Your task to perform on an android device: turn pop-ups off in chrome Image 0: 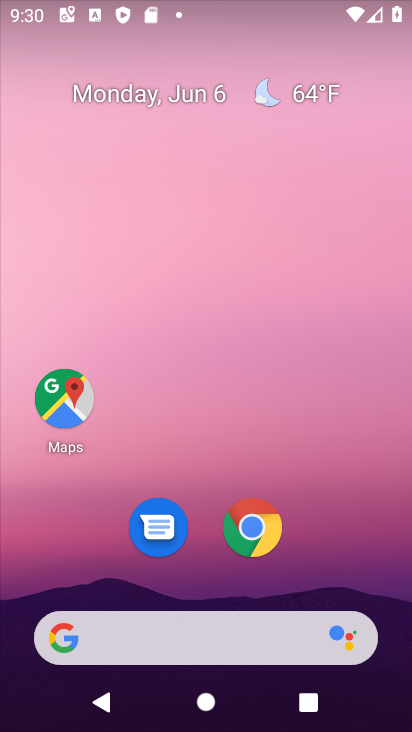
Step 0: drag from (263, 341) to (237, 178)
Your task to perform on an android device: turn pop-ups off in chrome Image 1: 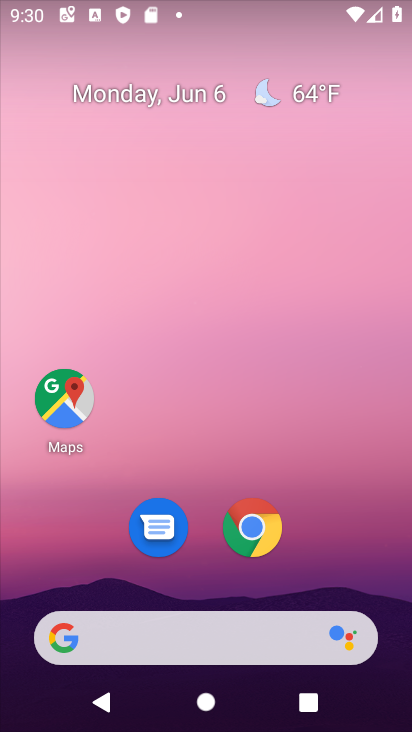
Step 1: drag from (214, 669) to (218, 191)
Your task to perform on an android device: turn pop-ups off in chrome Image 2: 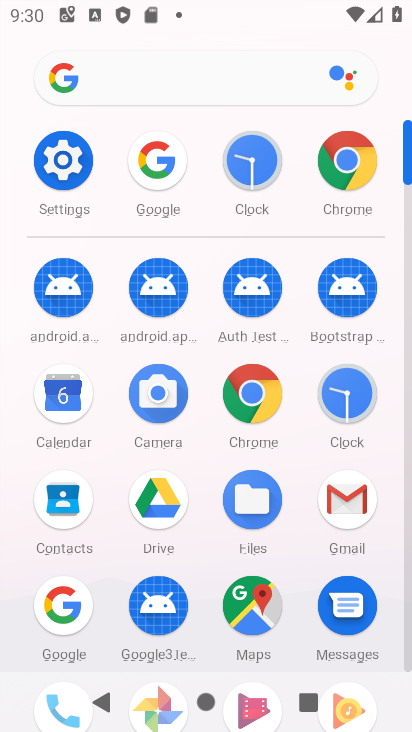
Step 2: click (341, 184)
Your task to perform on an android device: turn pop-ups off in chrome Image 3: 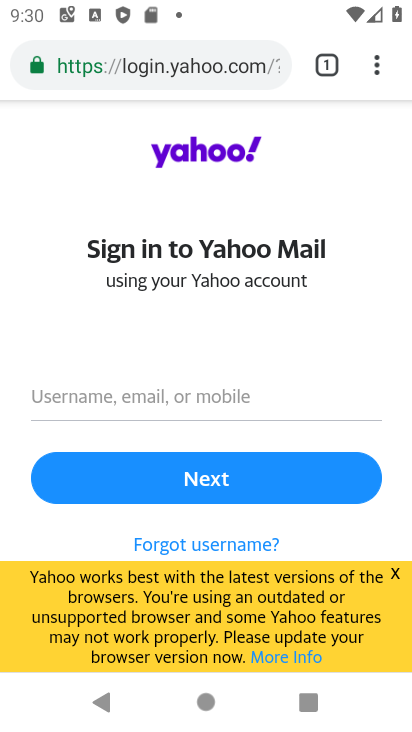
Step 3: click (384, 78)
Your task to perform on an android device: turn pop-ups off in chrome Image 4: 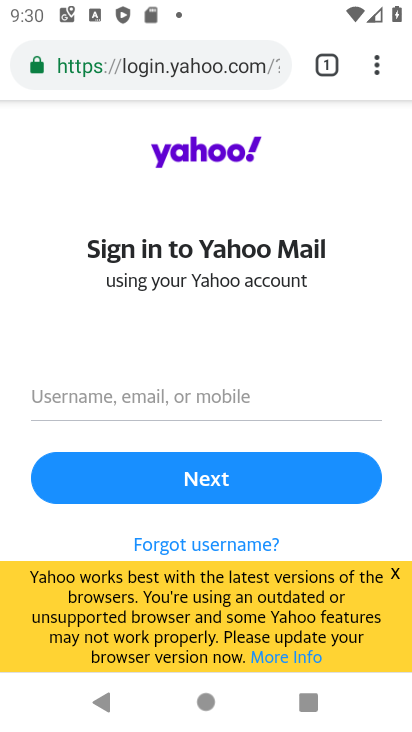
Step 4: click (384, 78)
Your task to perform on an android device: turn pop-ups off in chrome Image 5: 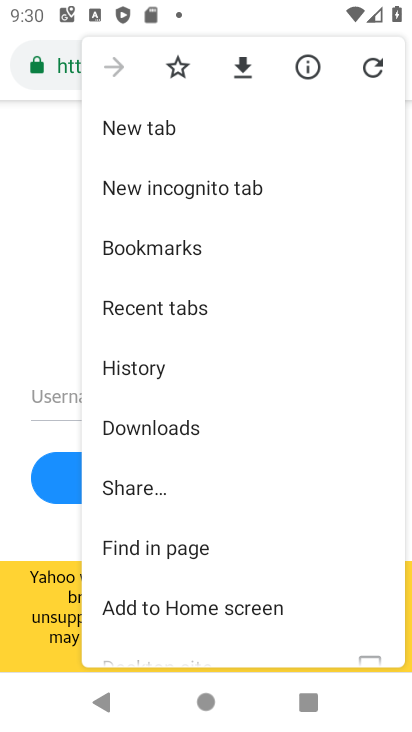
Step 5: drag from (206, 509) to (231, 241)
Your task to perform on an android device: turn pop-ups off in chrome Image 6: 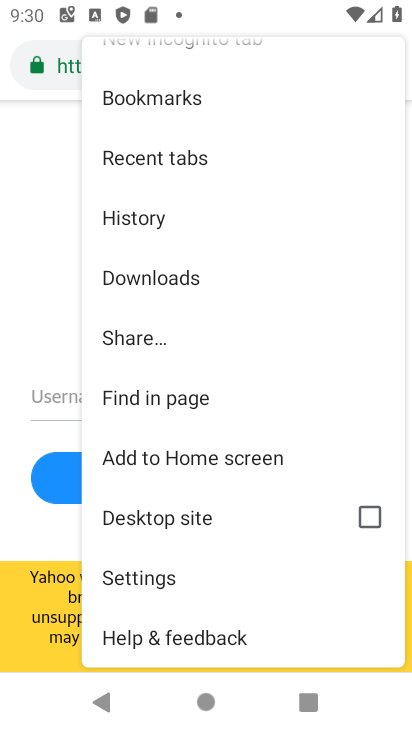
Step 6: click (169, 574)
Your task to perform on an android device: turn pop-ups off in chrome Image 7: 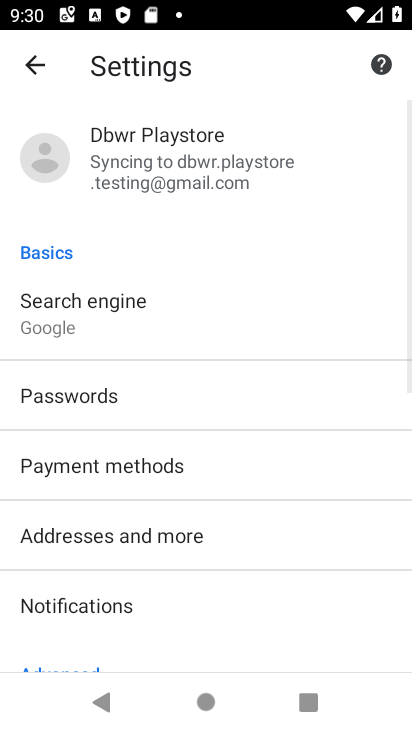
Step 7: drag from (167, 513) to (165, 377)
Your task to perform on an android device: turn pop-ups off in chrome Image 8: 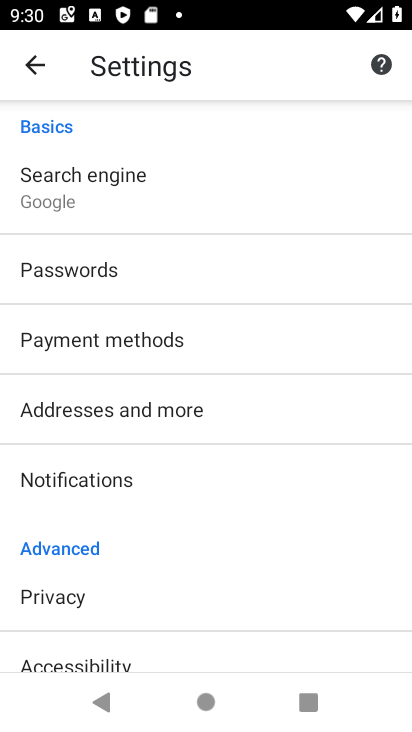
Step 8: drag from (156, 551) to (129, 340)
Your task to perform on an android device: turn pop-ups off in chrome Image 9: 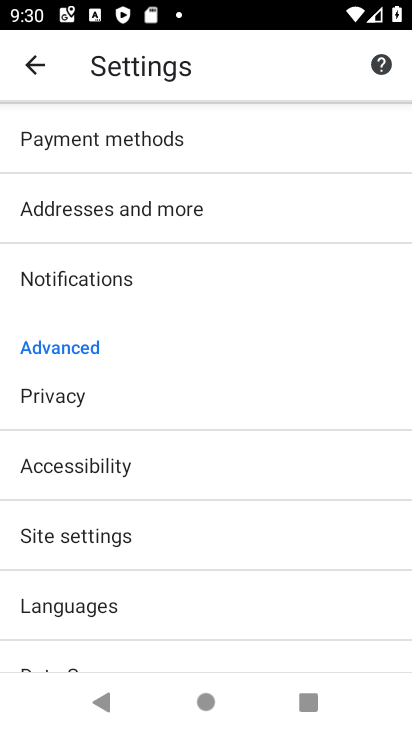
Step 9: drag from (125, 572) to (129, 331)
Your task to perform on an android device: turn pop-ups off in chrome Image 10: 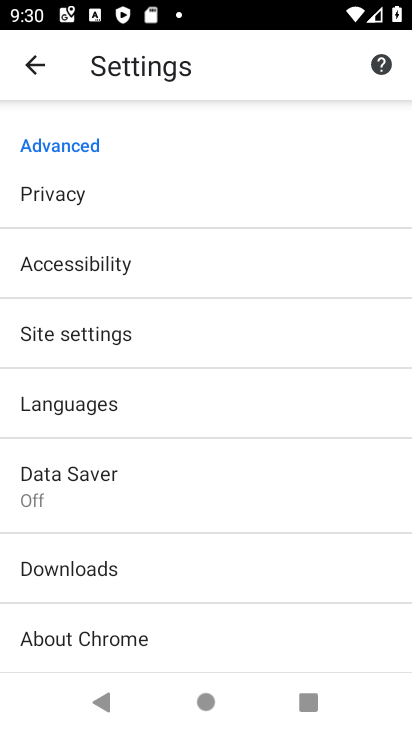
Step 10: drag from (157, 572) to (165, 367)
Your task to perform on an android device: turn pop-ups off in chrome Image 11: 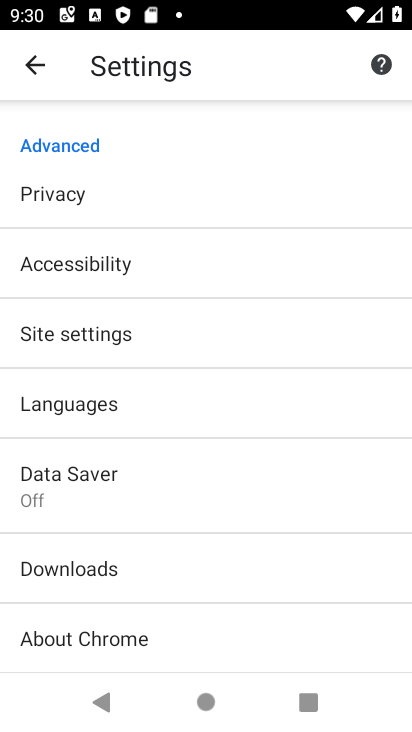
Step 11: drag from (159, 591) to (177, 310)
Your task to perform on an android device: turn pop-ups off in chrome Image 12: 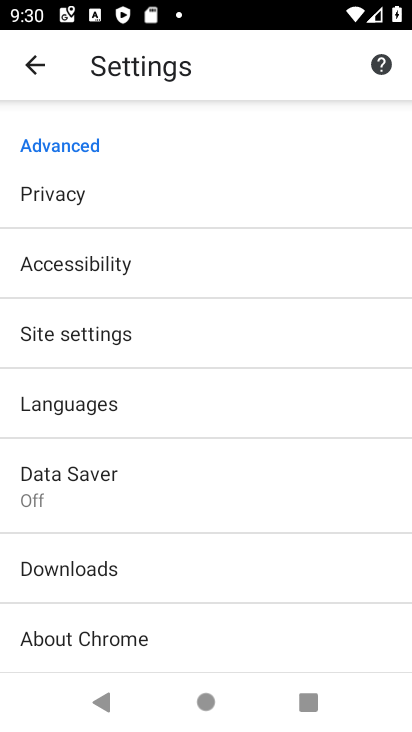
Step 12: click (173, 454)
Your task to perform on an android device: turn pop-ups off in chrome Image 13: 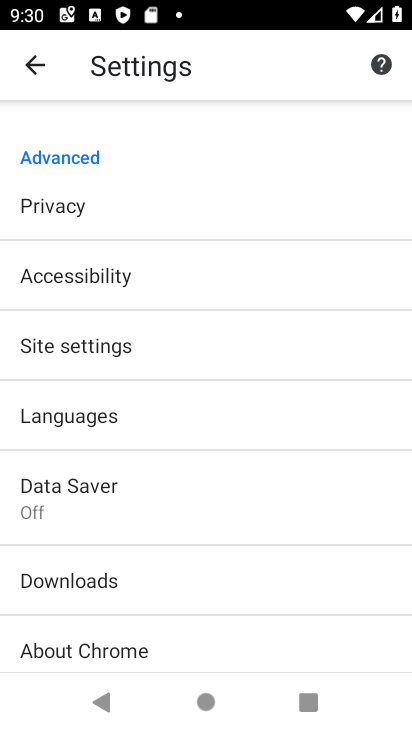
Step 13: click (170, 336)
Your task to perform on an android device: turn pop-ups off in chrome Image 14: 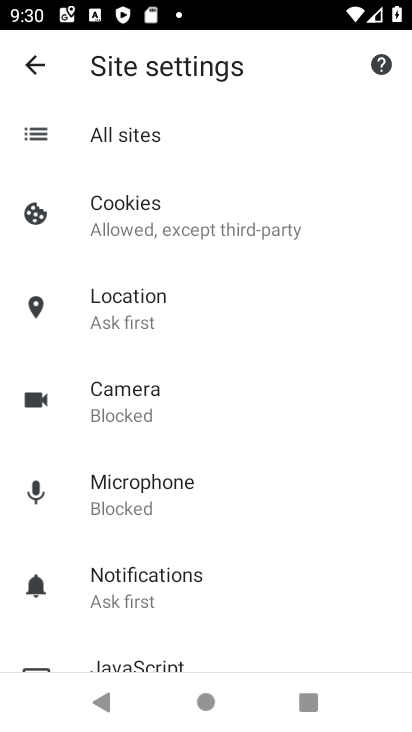
Step 14: drag from (161, 495) to (204, 243)
Your task to perform on an android device: turn pop-ups off in chrome Image 15: 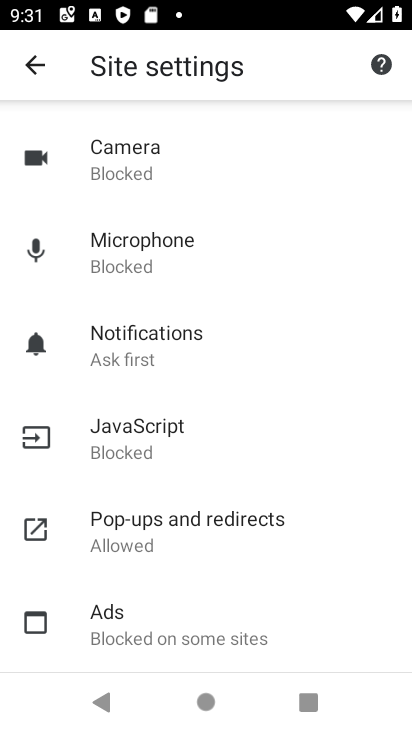
Step 15: click (162, 543)
Your task to perform on an android device: turn pop-ups off in chrome Image 16: 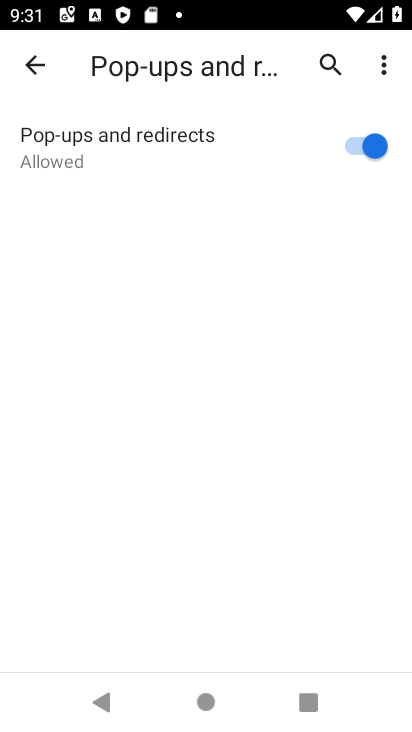
Step 16: click (350, 150)
Your task to perform on an android device: turn pop-ups off in chrome Image 17: 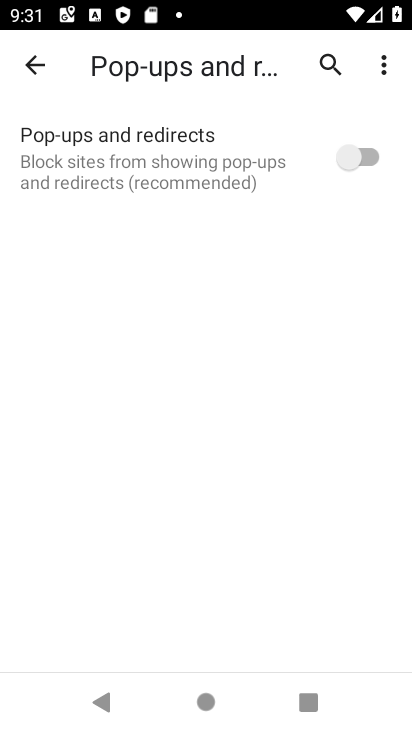
Step 17: task complete